Your task to perform on an android device: change keyboard looks Image 0: 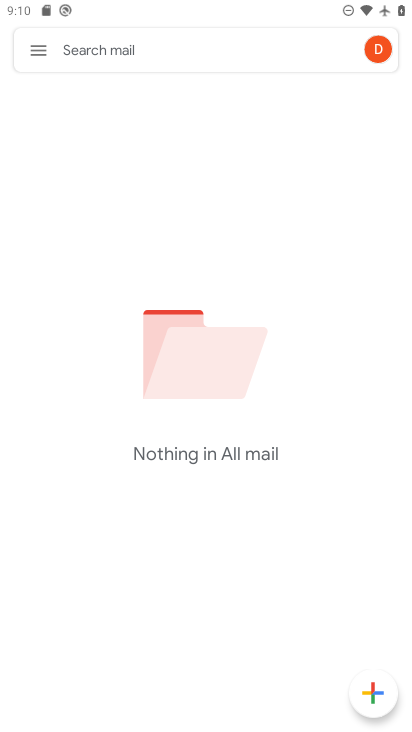
Step 0: press home button
Your task to perform on an android device: change keyboard looks Image 1: 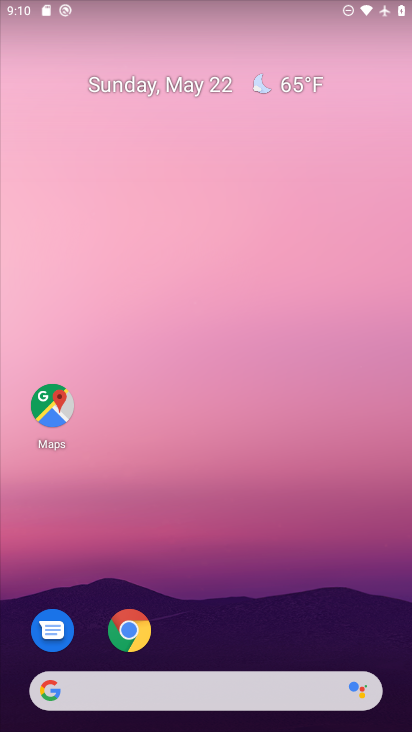
Step 1: drag from (169, 694) to (284, 205)
Your task to perform on an android device: change keyboard looks Image 2: 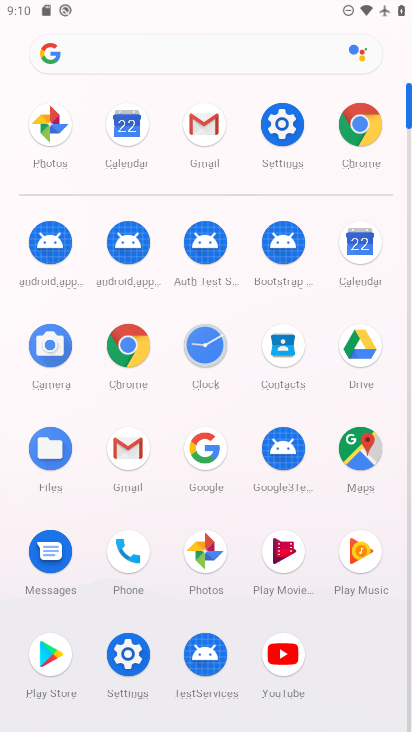
Step 2: click (283, 131)
Your task to perform on an android device: change keyboard looks Image 3: 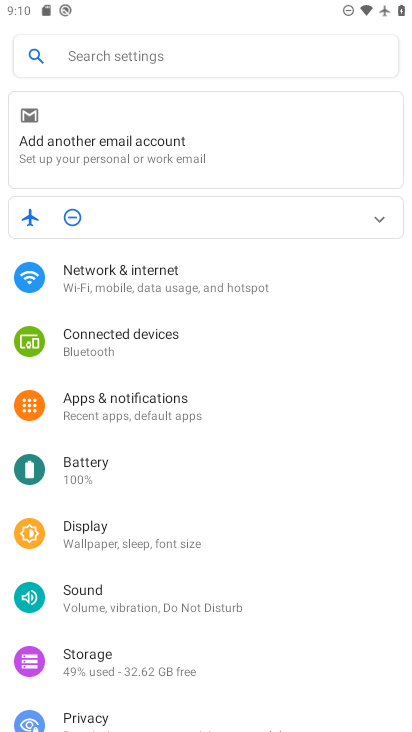
Step 3: drag from (247, 663) to (300, 0)
Your task to perform on an android device: change keyboard looks Image 4: 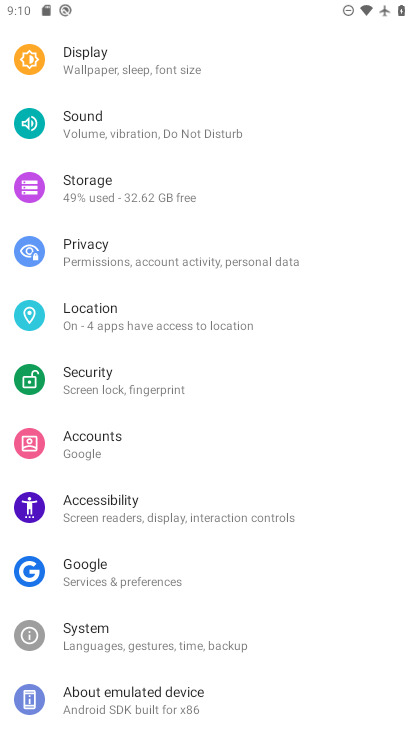
Step 4: drag from (201, 636) to (240, 249)
Your task to perform on an android device: change keyboard looks Image 5: 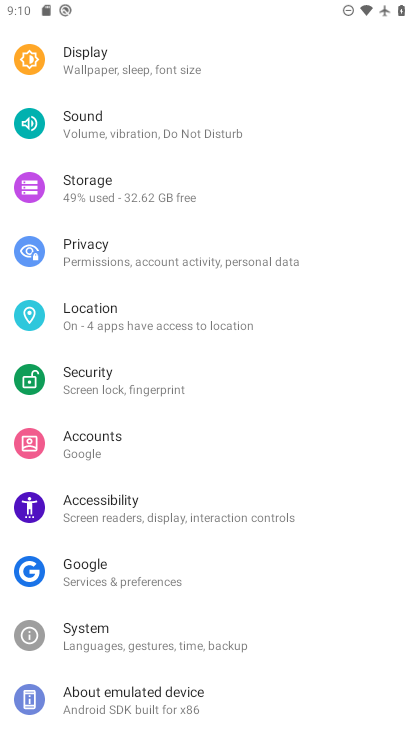
Step 5: click (141, 641)
Your task to perform on an android device: change keyboard looks Image 6: 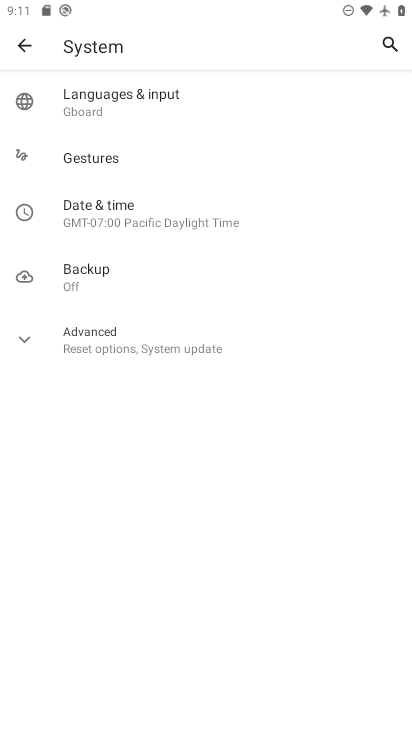
Step 6: click (124, 102)
Your task to perform on an android device: change keyboard looks Image 7: 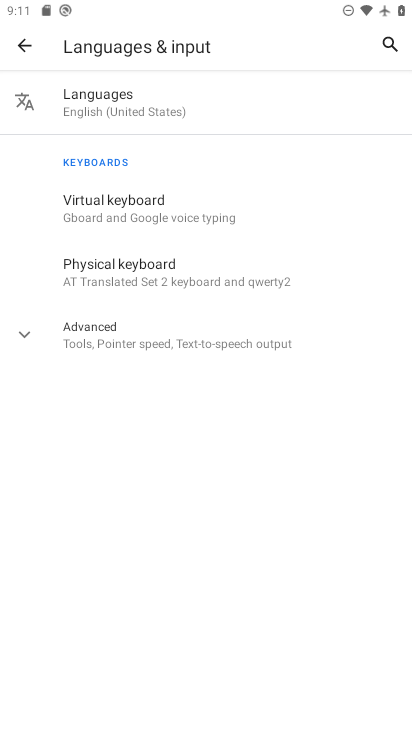
Step 7: click (145, 210)
Your task to perform on an android device: change keyboard looks Image 8: 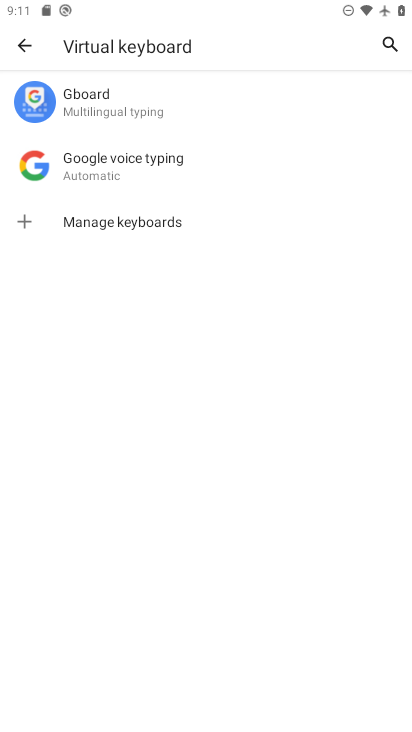
Step 8: click (114, 103)
Your task to perform on an android device: change keyboard looks Image 9: 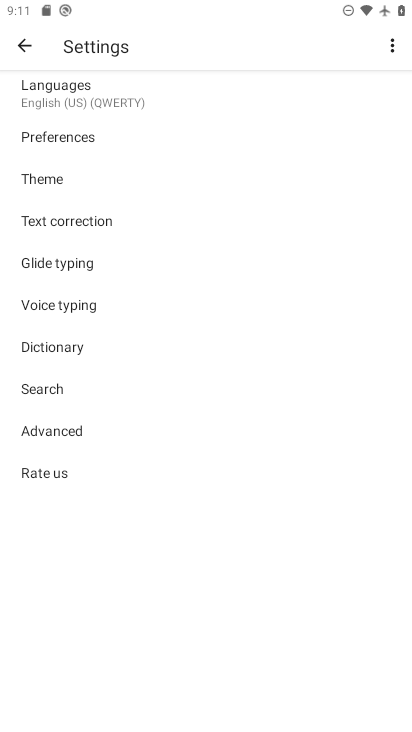
Step 9: click (49, 183)
Your task to perform on an android device: change keyboard looks Image 10: 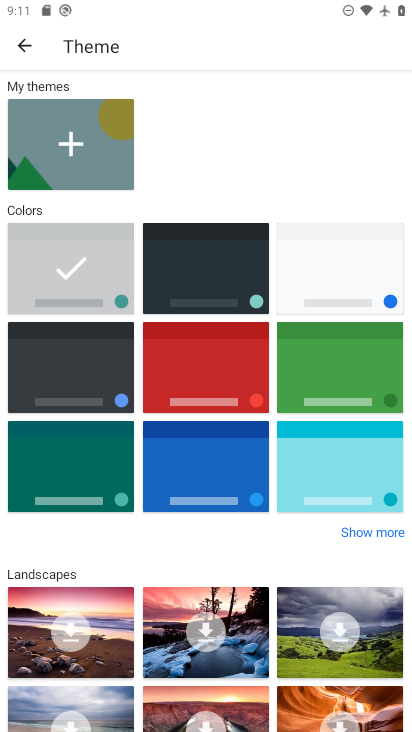
Step 10: click (92, 472)
Your task to perform on an android device: change keyboard looks Image 11: 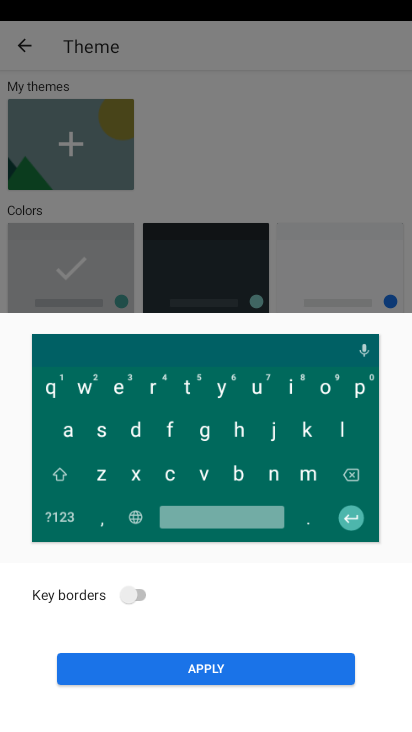
Step 11: click (209, 666)
Your task to perform on an android device: change keyboard looks Image 12: 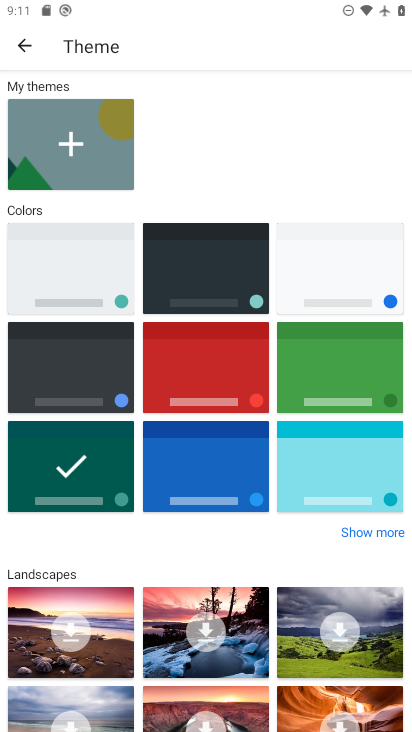
Step 12: task complete